Your task to perform on an android device: Open internet settings Image 0: 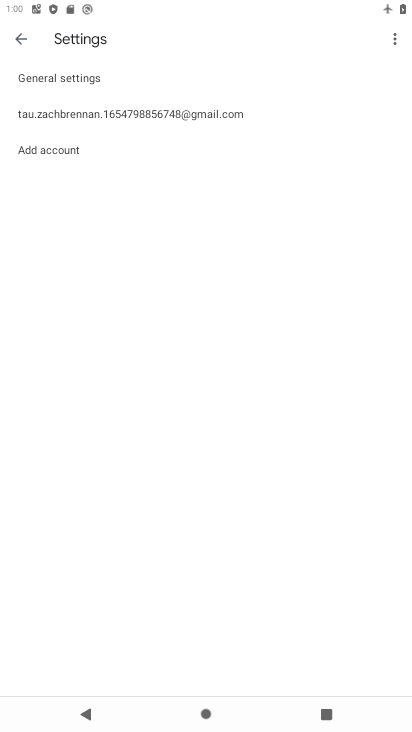
Step 0: press home button
Your task to perform on an android device: Open internet settings Image 1: 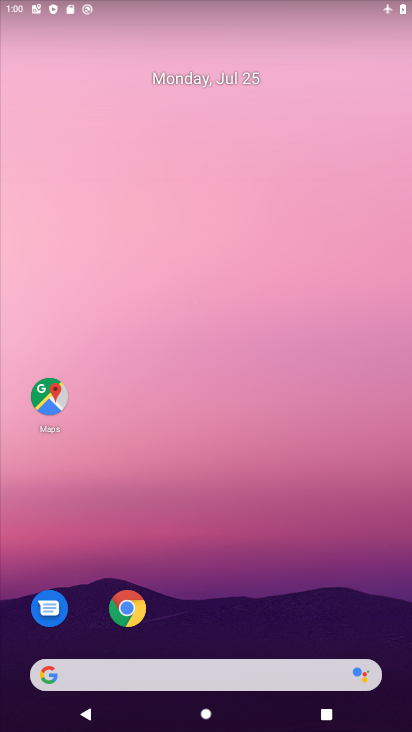
Step 1: drag from (262, 653) to (243, 6)
Your task to perform on an android device: Open internet settings Image 2: 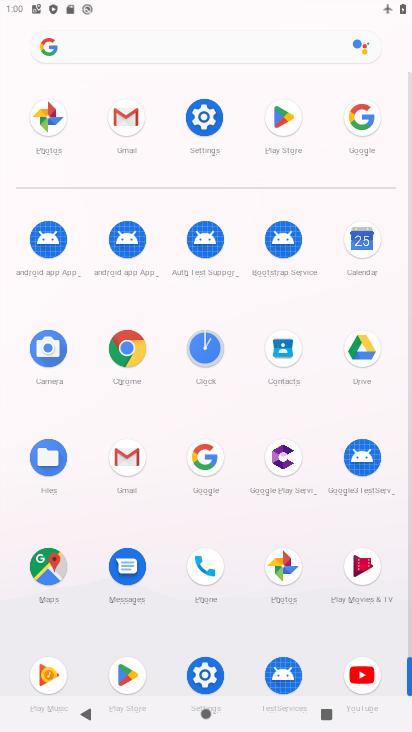
Step 2: click (196, 119)
Your task to perform on an android device: Open internet settings Image 3: 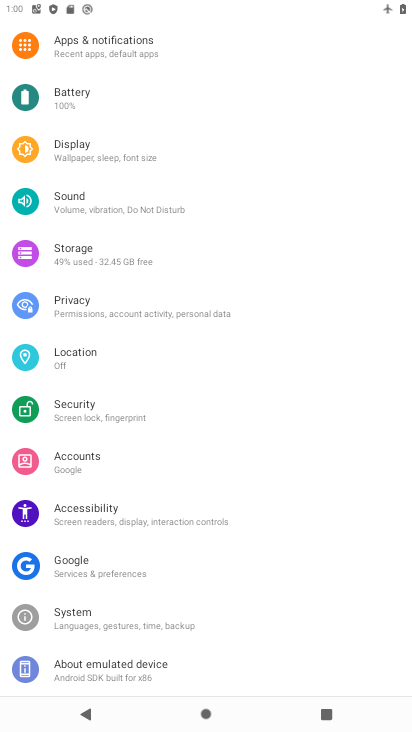
Step 3: drag from (176, 107) to (201, 358)
Your task to perform on an android device: Open internet settings Image 4: 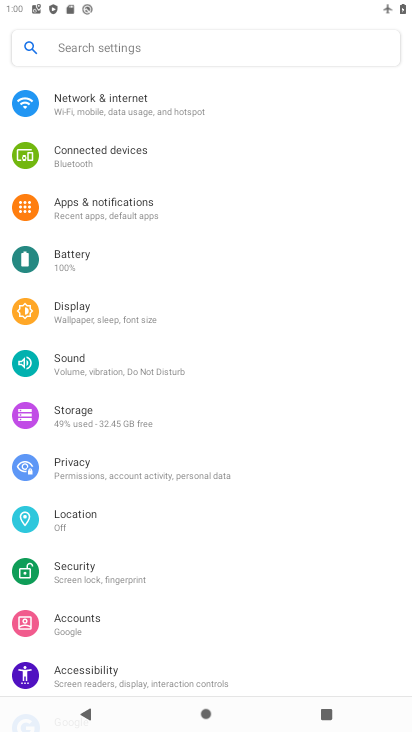
Step 4: click (121, 99)
Your task to perform on an android device: Open internet settings Image 5: 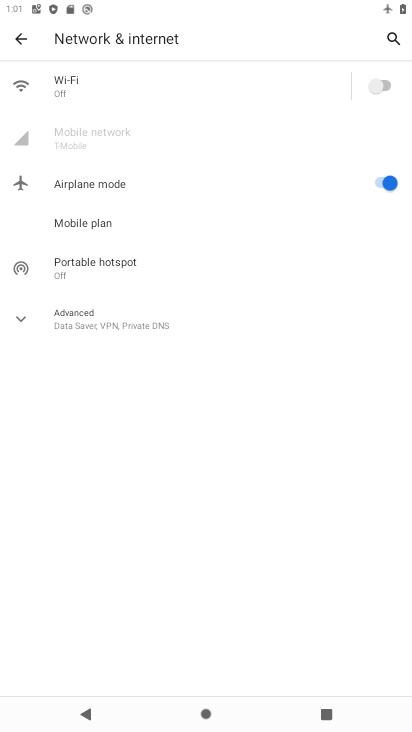
Step 5: click (15, 322)
Your task to perform on an android device: Open internet settings Image 6: 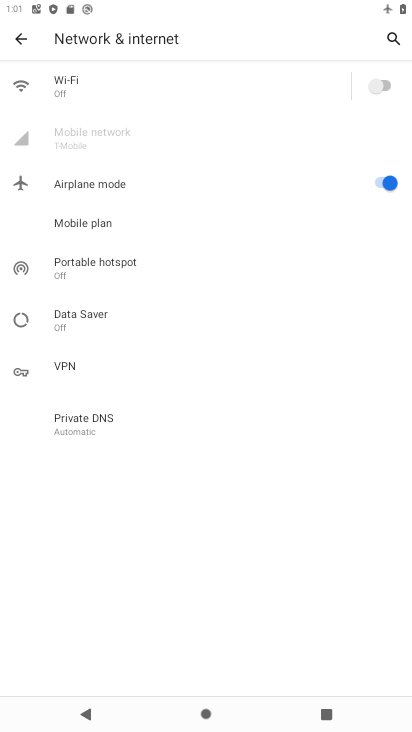
Step 6: task complete